Your task to perform on an android device: Go to settings Image 0: 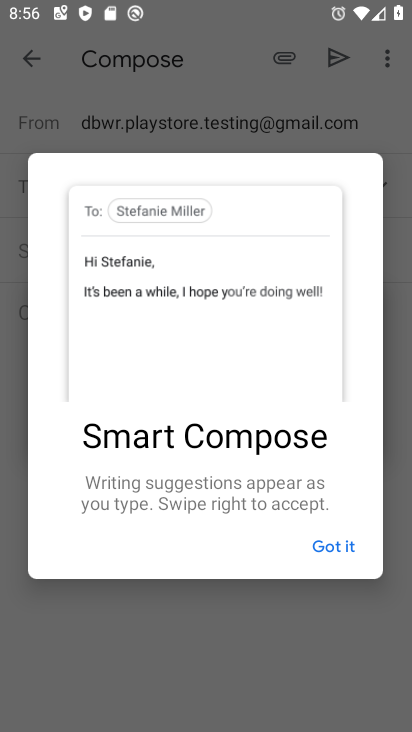
Step 0: press home button
Your task to perform on an android device: Go to settings Image 1: 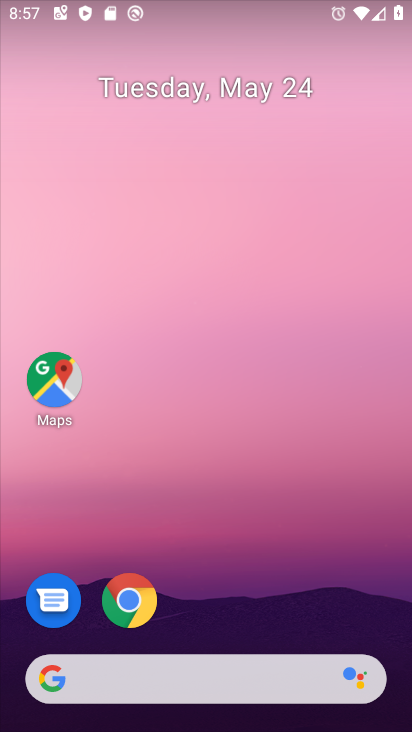
Step 1: drag from (198, 729) to (198, 4)
Your task to perform on an android device: Go to settings Image 2: 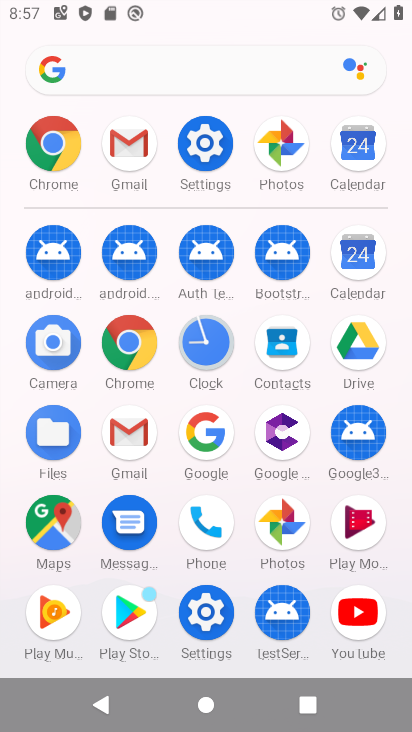
Step 2: click (211, 144)
Your task to perform on an android device: Go to settings Image 3: 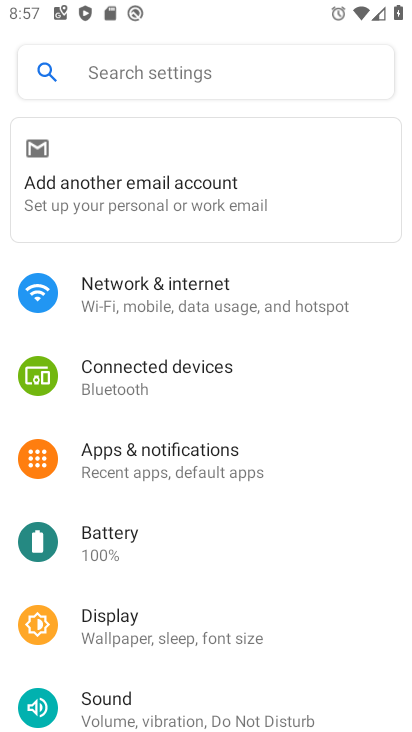
Step 3: task complete